Your task to perform on an android device: See recent photos Image 0: 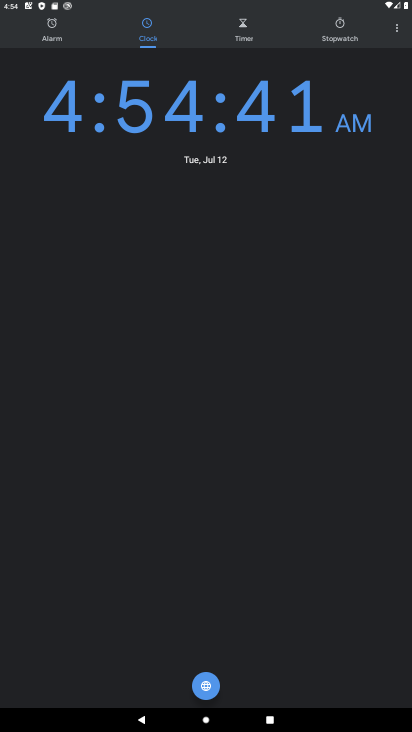
Step 0: press home button
Your task to perform on an android device: See recent photos Image 1: 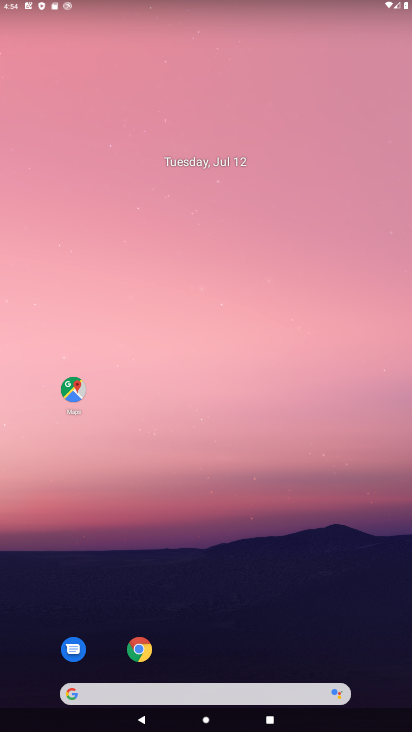
Step 1: drag from (187, 693) to (178, 226)
Your task to perform on an android device: See recent photos Image 2: 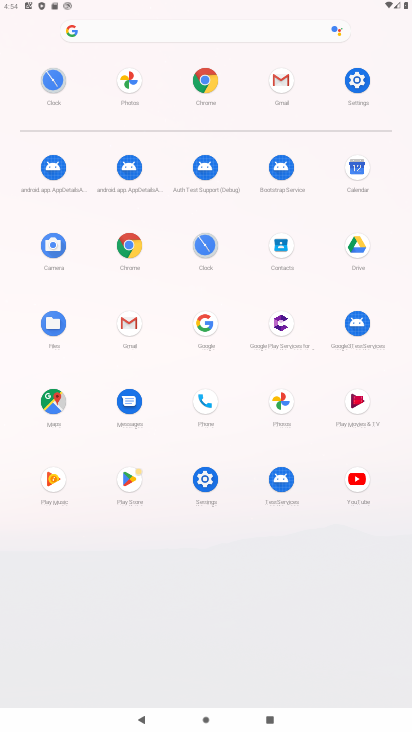
Step 2: click (129, 81)
Your task to perform on an android device: See recent photos Image 3: 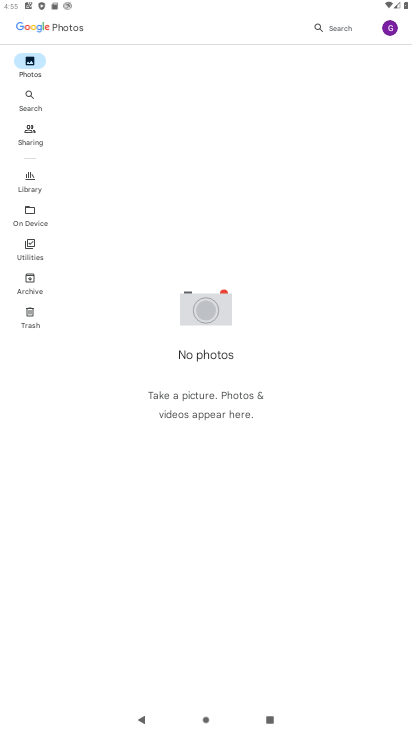
Step 3: click (30, 128)
Your task to perform on an android device: See recent photos Image 4: 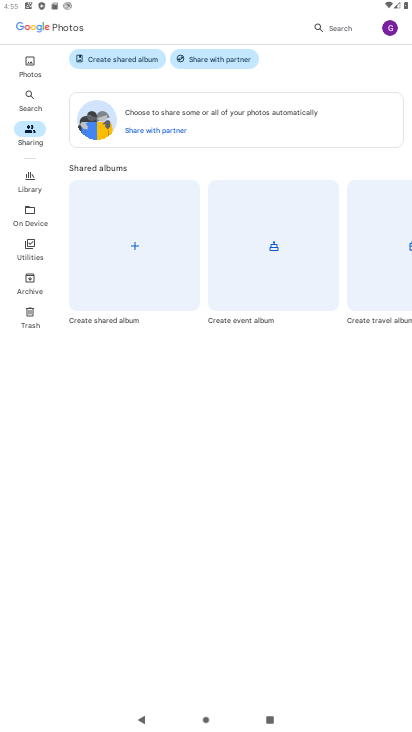
Step 4: click (33, 191)
Your task to perform on an android device: See recent photos Image 5: 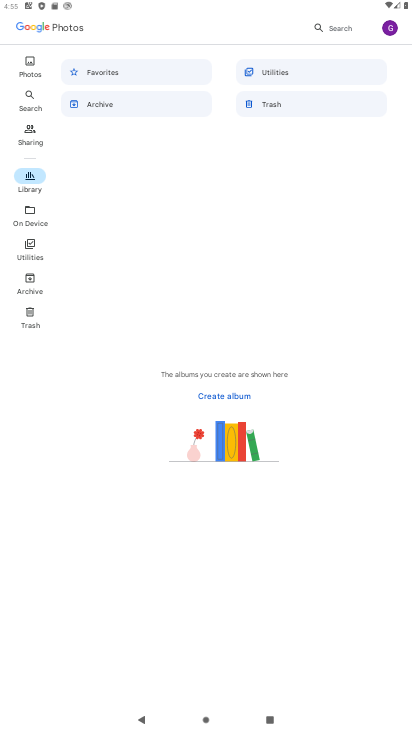
Step 5: click (23, 210)
Your task to perform on an android device: See recent photos Image 6: 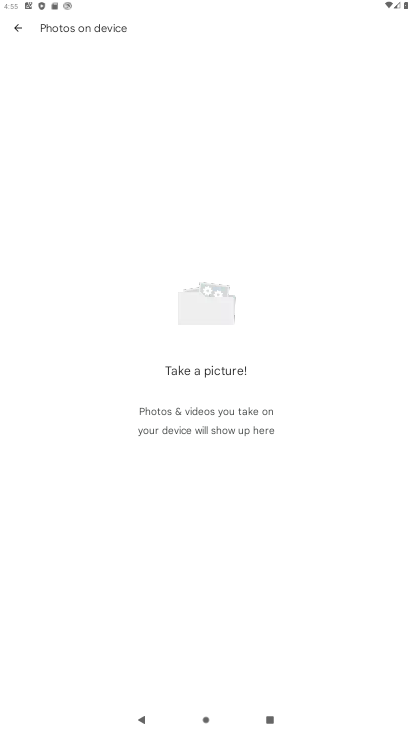
Step 6: press back button
Your task to perform on an android device: See recent photos Image 7: 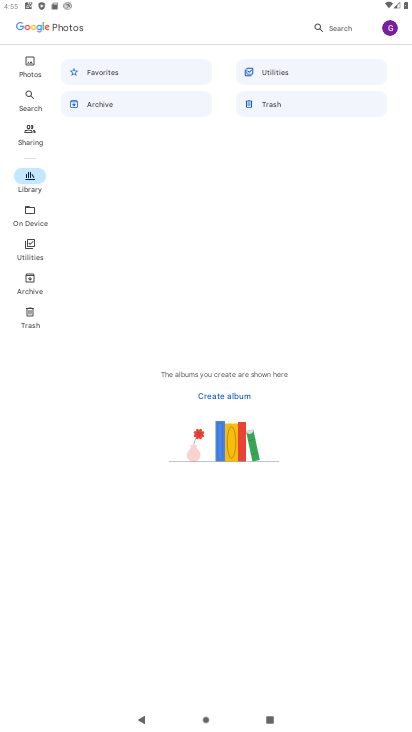
Step 7: click (28, 71)
Your task to perform on an android device: See recent photos Image 8: 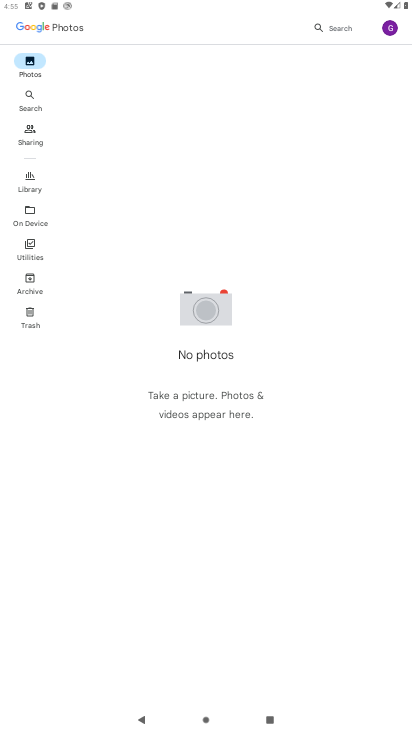
Step 8: task complete